Your task to perform on an android device: turn off sleep mode Image 0: 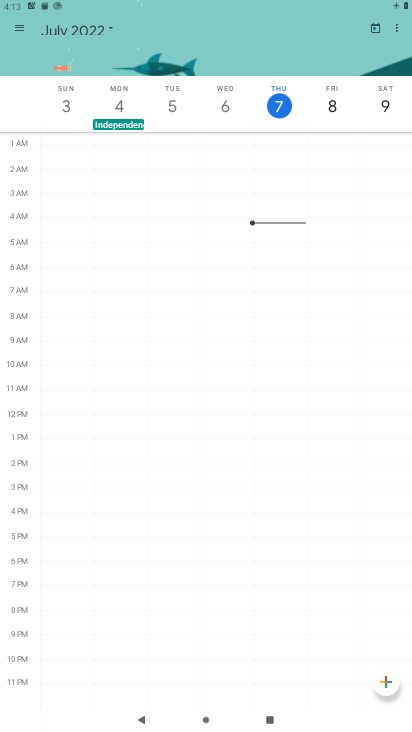
Step 0: press home button
Your task to perform on an android device: turn off sleep mode Image 1: 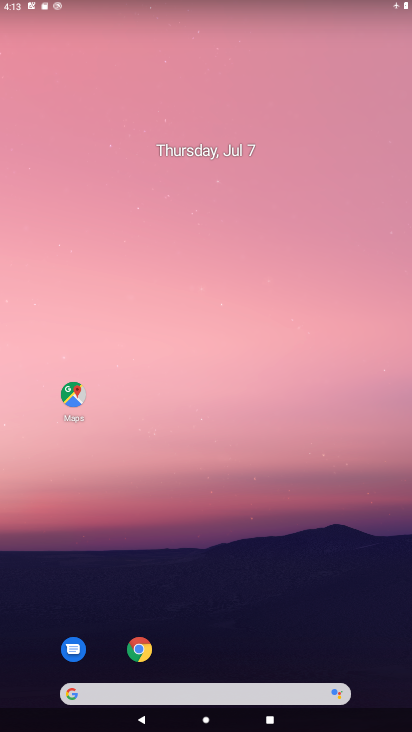
Step 1: drag from (389, 640) to (318, 107)
Your task to perform on an android device: turn off sleep mode Image 2: 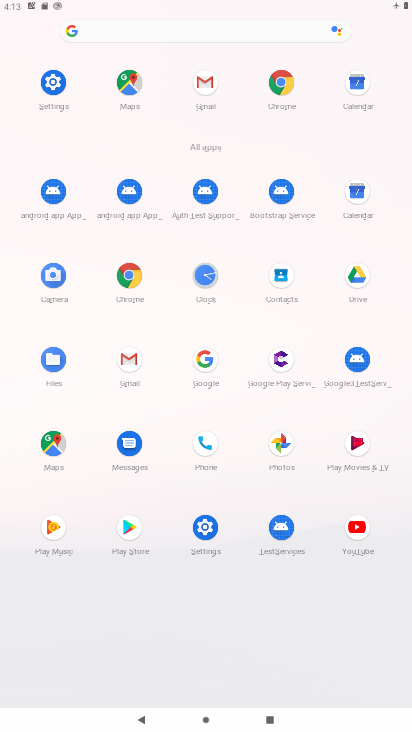
Step 2: click (206, 527)
Your task to perform on an android device: turn off sleep mode Image 3: 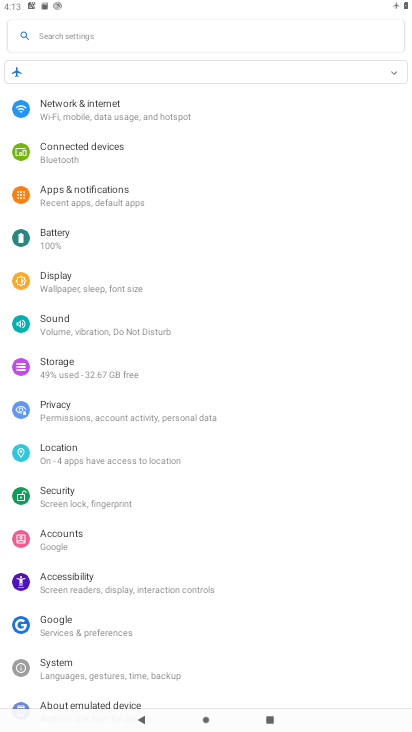
Step 3: click (62, 279)
Your task to perform on an android device: turn off sleep mode Image 4: 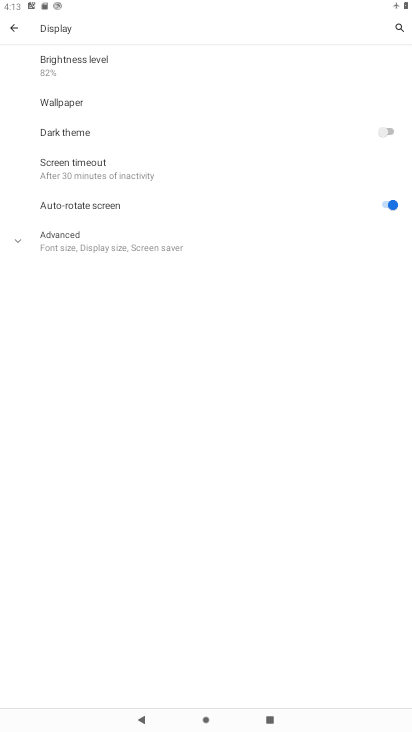
Step 4: click (30, 241)
Your task to perform on an android device: turn off sleep mode Image 5: 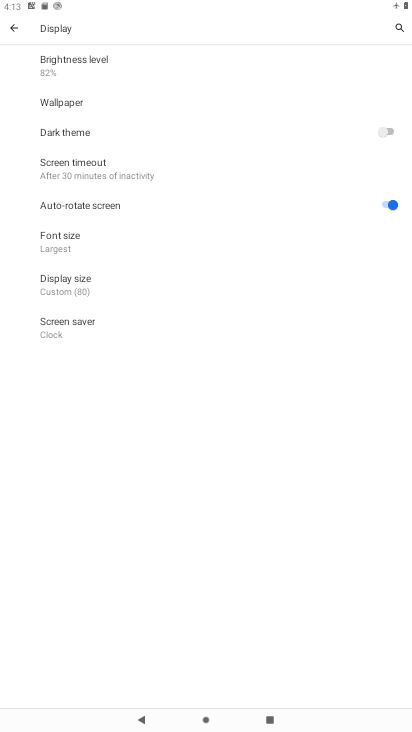
Step 5: task complete